Your task to perform on an android device: change text size in settings app Image 0: 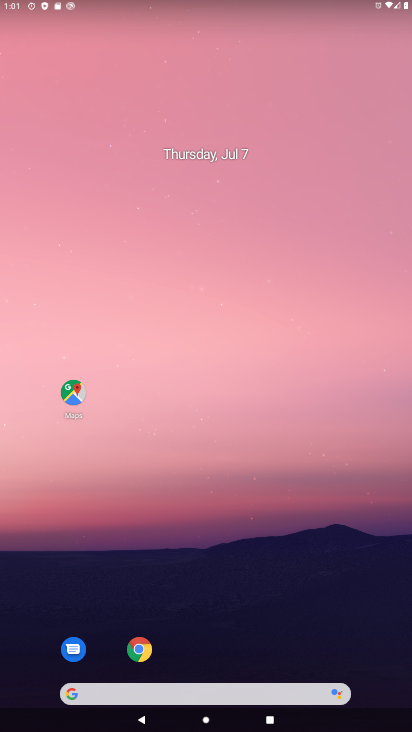
Step 0: drag from (208, 669) to (181, 178)
Your task to perform on an android device: change text size in settings app Image 1: 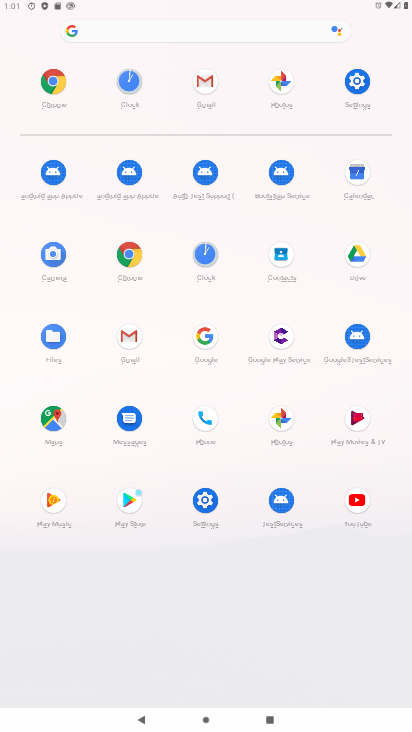
Step 1: click (198, 486)
Your task to perform on an android device: change text size in settings app Image 2: 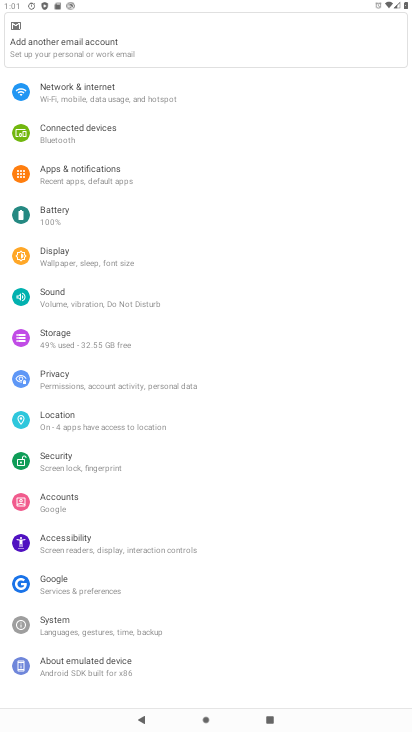
Step 2: click (55, 250)
Your task to perform on an android device: change text size in settings app Image 3: 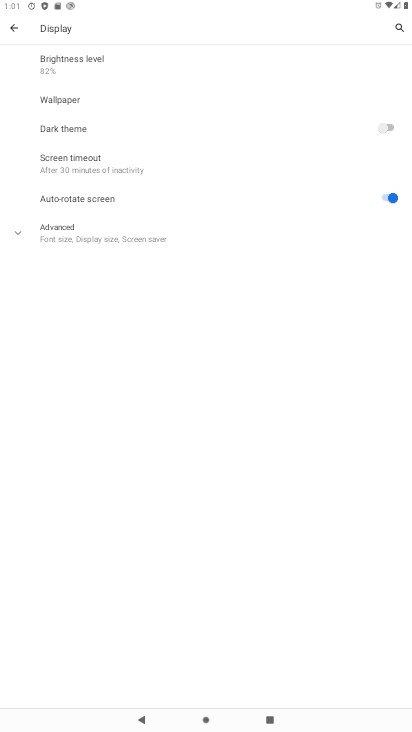
Step 3: click (51, 235)
Your task to perform on an android device: change text size in settings app Image 4: 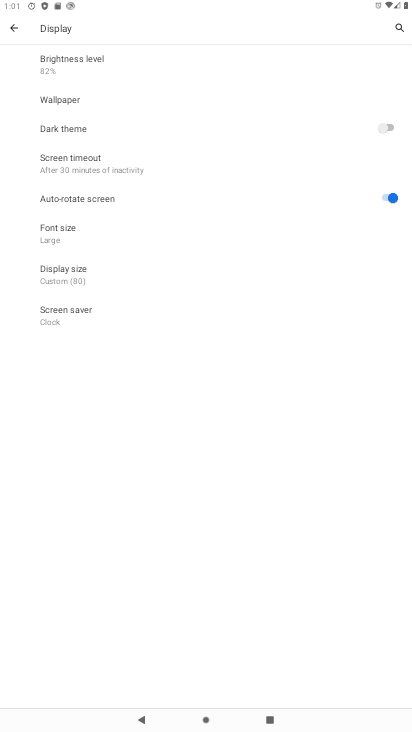
Step 4: click (67, 233)
Your task to perform on an android device: change text size in settings app Image 5: 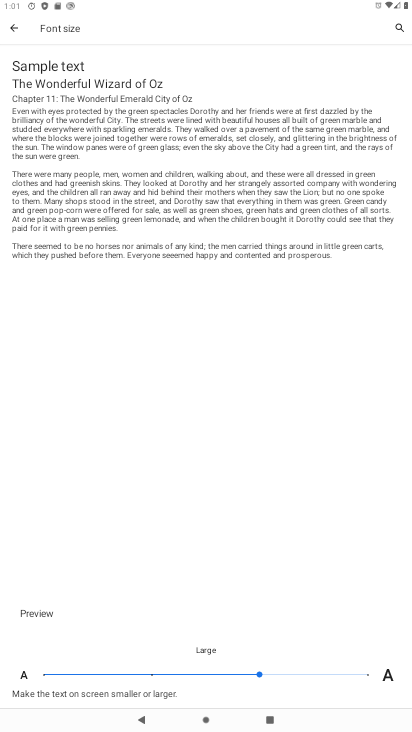
Step 5: click (363, 678)
Your task to perform on an android device: change text size in settings app Image 6: 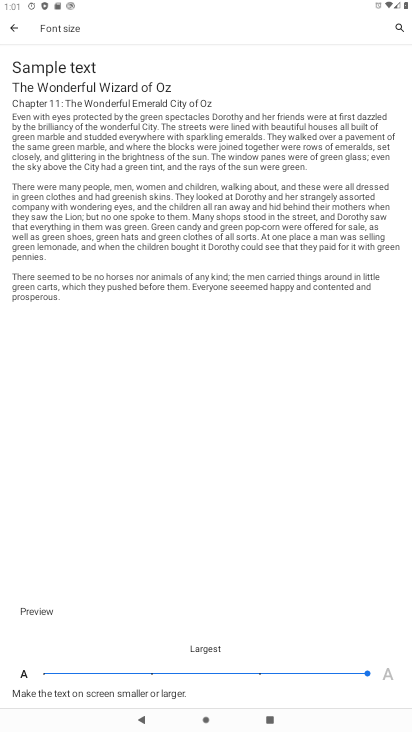
Step 6: task complete